Your task to perform on an android device: add a label to a message in the gmail app Image 0: 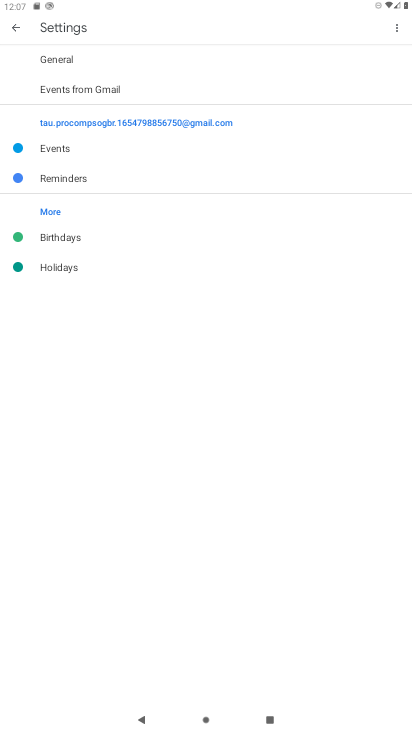
Step 0: press home button
Your task to perform on an android device: add a label to a message in the gmail app Image 1: 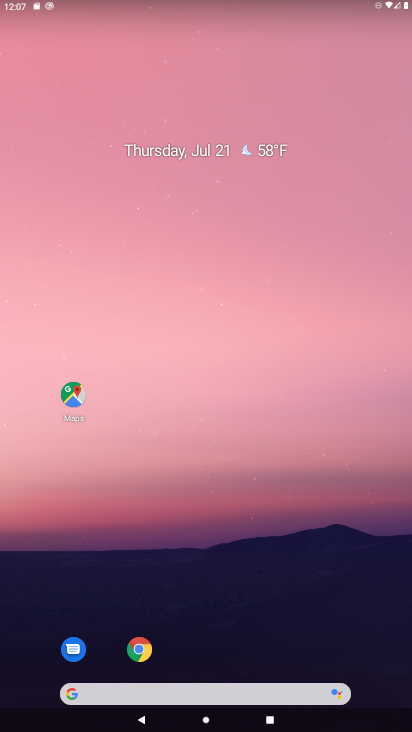
Step 1: drag from (257, 635) to (301, 213)
Your task to perform on an android device: add a label to a message in the gmail app Image 2: 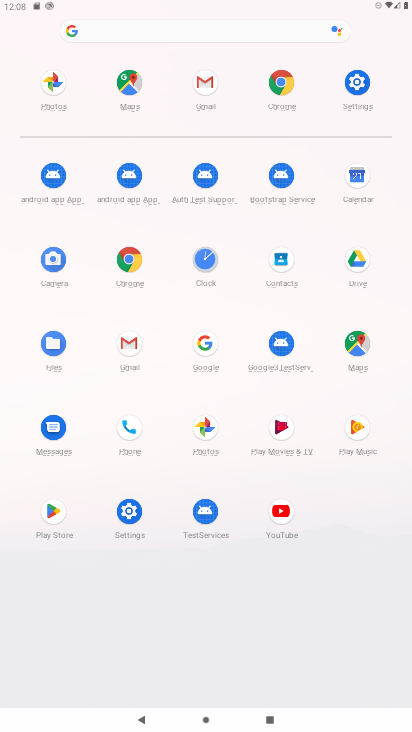
Step 2: click (125, 337)
Your task to perform on an android device: add a label to a message in the gmail app Image 3: 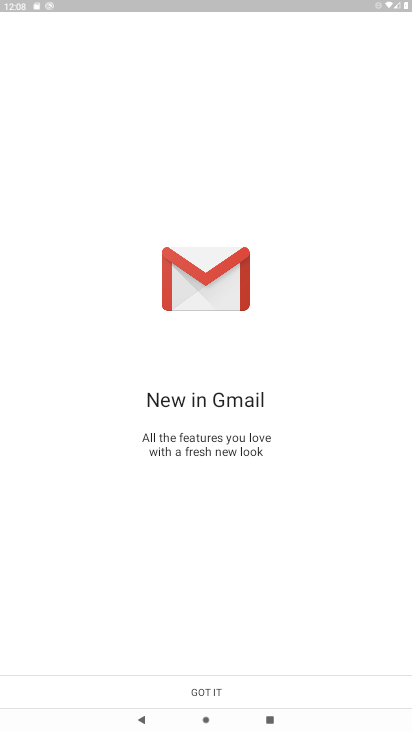
Step 3: click (208, 690)
Your task to perform on an android device: add a label to a message in the gmail app Image 4: 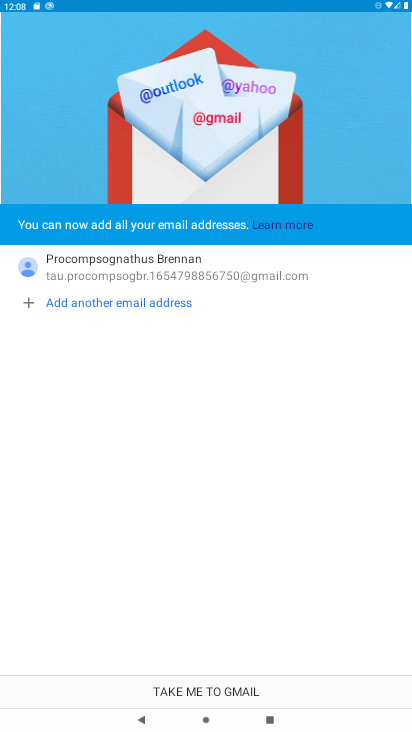
Step 4: click (208, 690)
Your task to perform on an android device: add a label to a message in the gmail app Image 5: 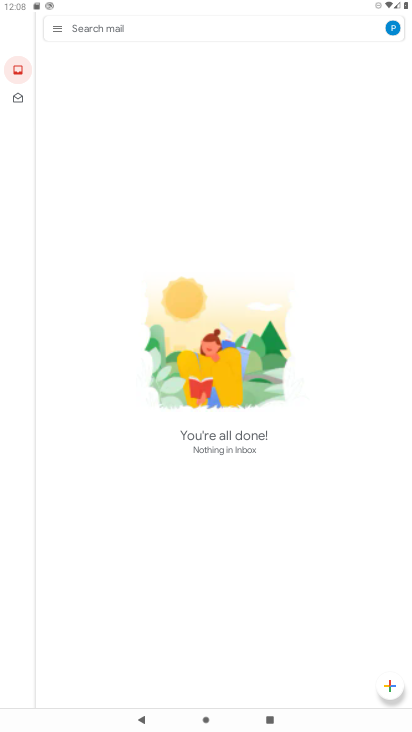
Step 5: click (56, 33)
Your task to perform on an android device: add a label to a message in the gmail app Image 6: 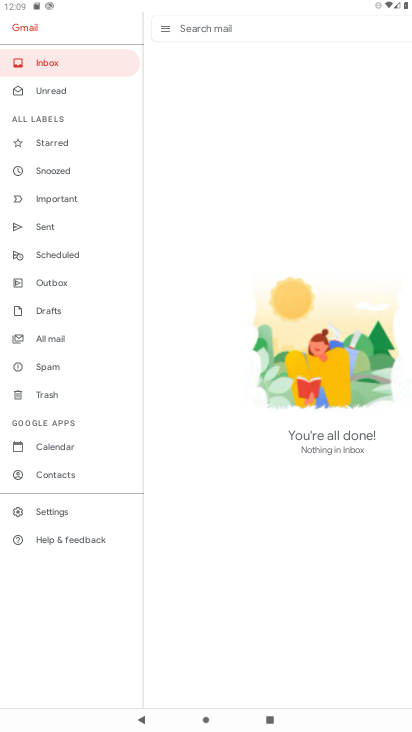
Step 6: task complete